Your task to perform on an android device: What's the weather? Image 0: 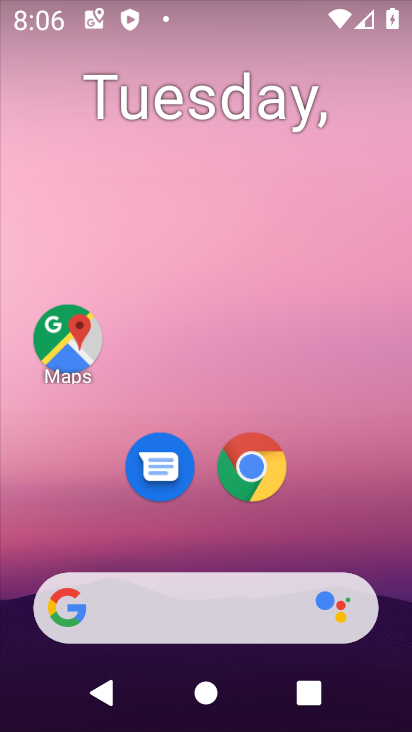
Step 0: drag from (392, 565) to (311, 145)
Your task to perform on an android device: What's the weather? Image 1: 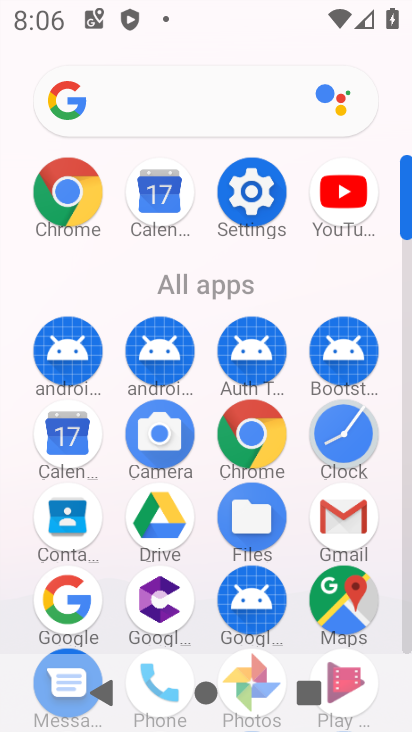
Step 1: click (82, 194)
Your task to perform on an android device: What's the weather? Image 2: 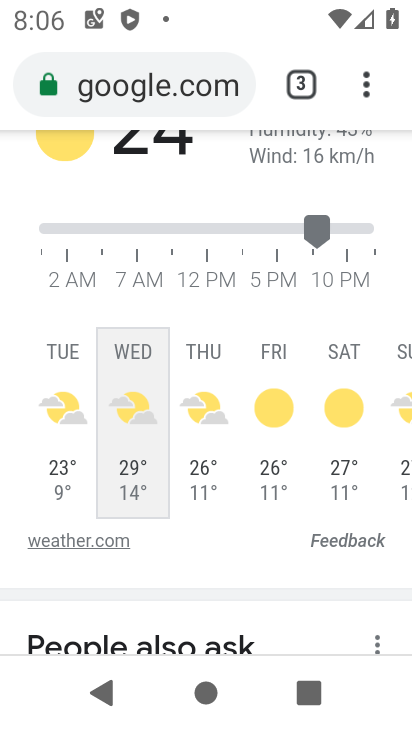
Step 2: click (139, 91)
Your task to perform on an android device: What's the weather? Image 3: 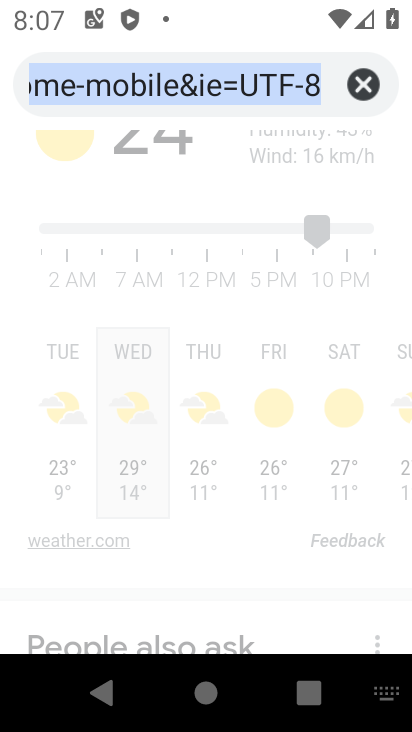
Step 3: type "Is it going to rain today?"
Your task to perform on an android device: What's the weather? Image 4: 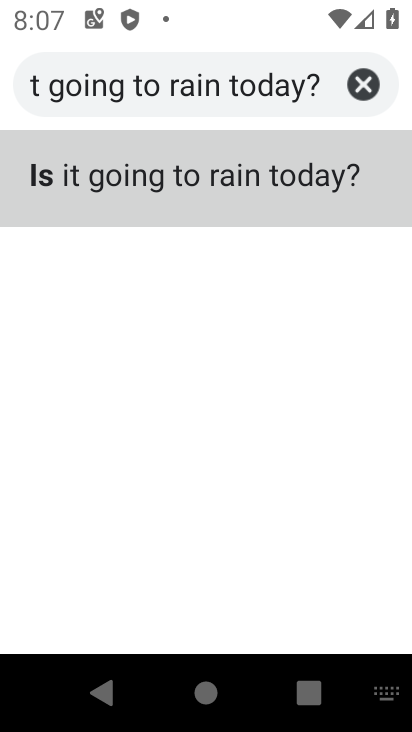
Step 4: type "What's the weather?"
Your task to perform on an android device: What's the weather? Image 5: 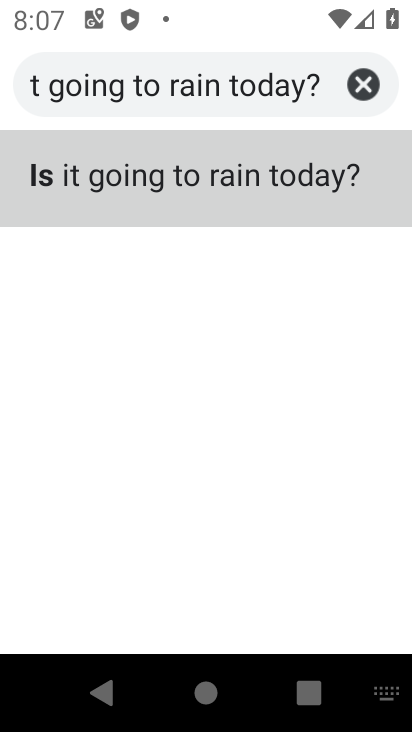
Step 5: click (371, 84)
Your task to perform on an android device: What's the weather? Image 6: 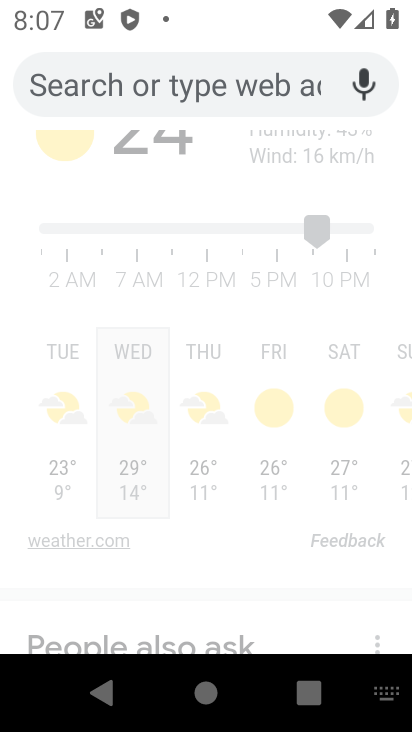
Step 6: click (230, 99)
Your task to perform on an android device: What's the weather? Image 7: 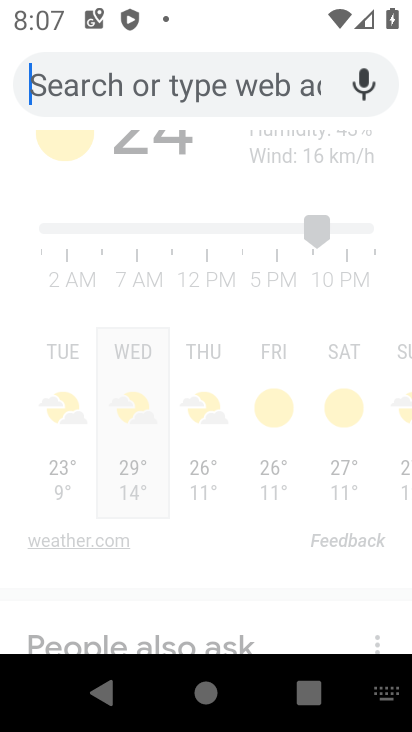
Step 7: type "What's the weather?"
Your task to perform on an android device: What's the weather? Image 8: 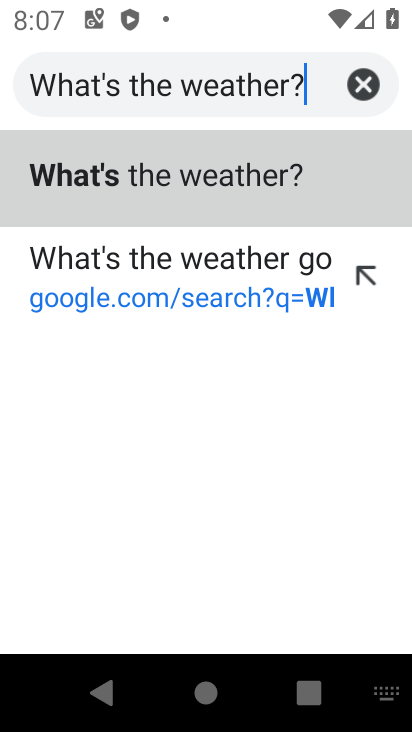
Step 8: click (213, 182)
Your task to perform on an android device: What's the weather? Image 9: 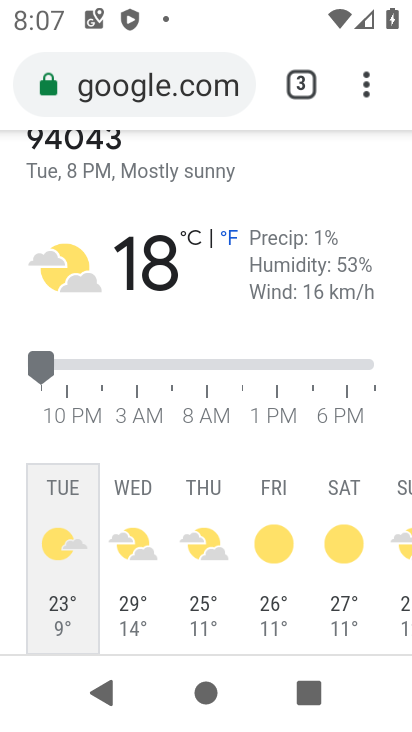
Step 9: drag from (247, 443) to (218, 221)
Your task to perform on an android device: What's the weather? Image 10: 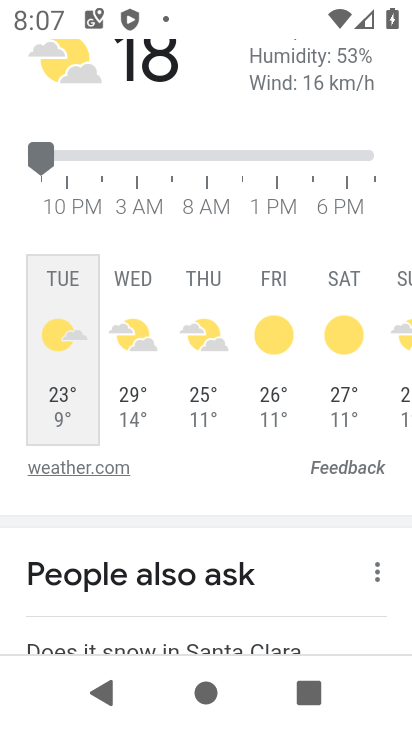
Step 10: click (148, 303)
Your task to perform on an android device: What's the weather? Image 11: 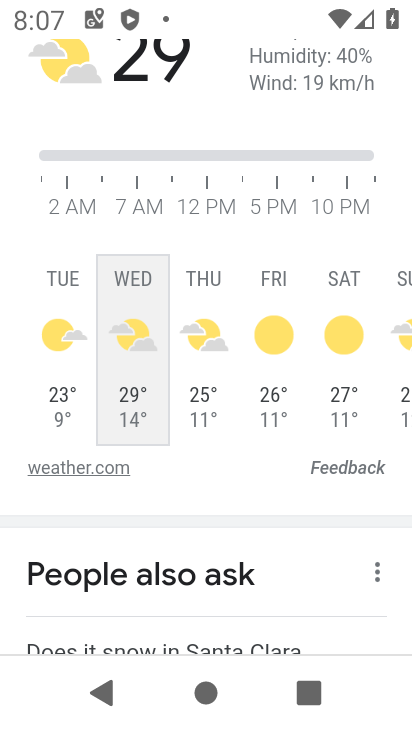
Step 11: task complete